Your task to perform on an android device: allow cookies in the chrome app Image 0: 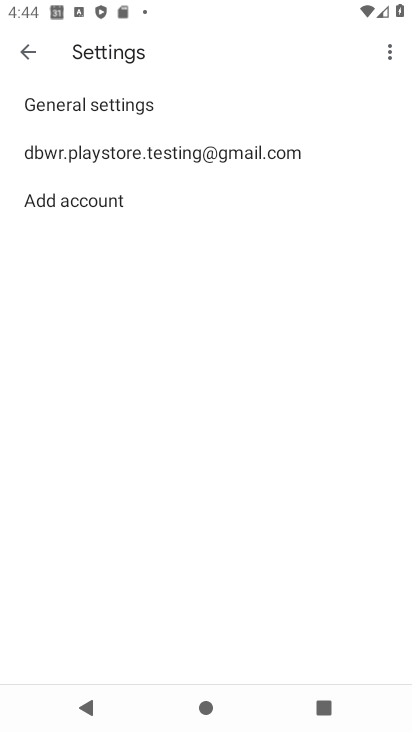
Step 0: press home button
Your task to perform on an android device: allow cookies in the chrome app Image 1: 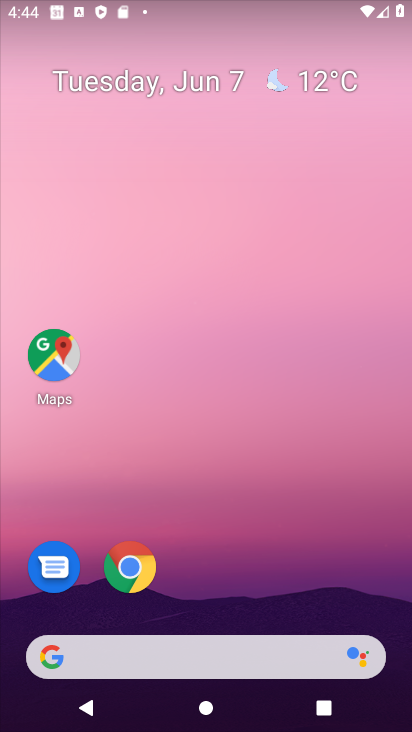
Step 1: drag from (228, 659) to (251, 144)
Your task to perform on an android device: allow cookies in the chrome app Image 2: 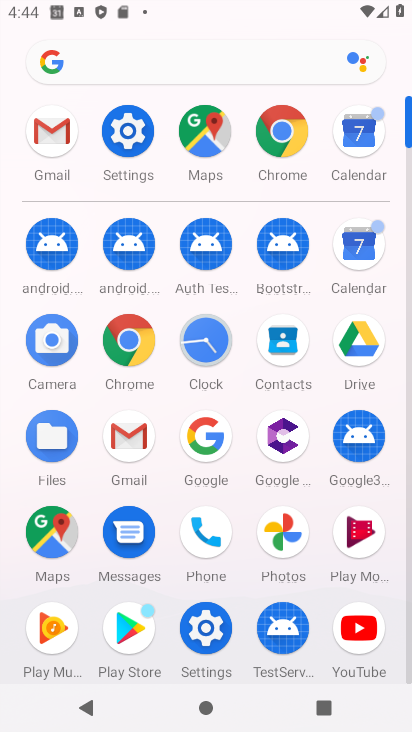
Step 2: click (138, 354)
Your task to perform on an android device: allow cookies in the chrome app Image 3: 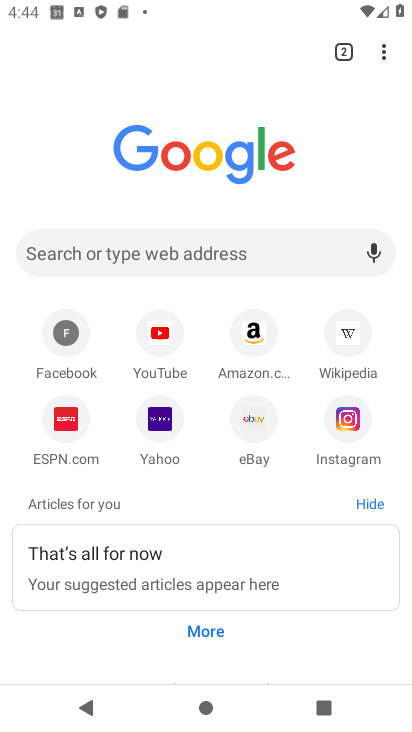
Step 3: click (392, 51)
Your task to perform on an android device: allow cookies in the chrome app Image 4: 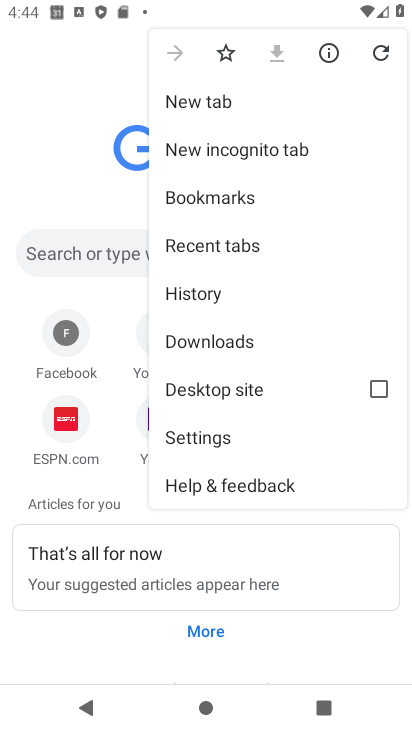
Step 4: click (236, 431)
Your task to perform on an android device: allow cookies in the chrome app Image 5: 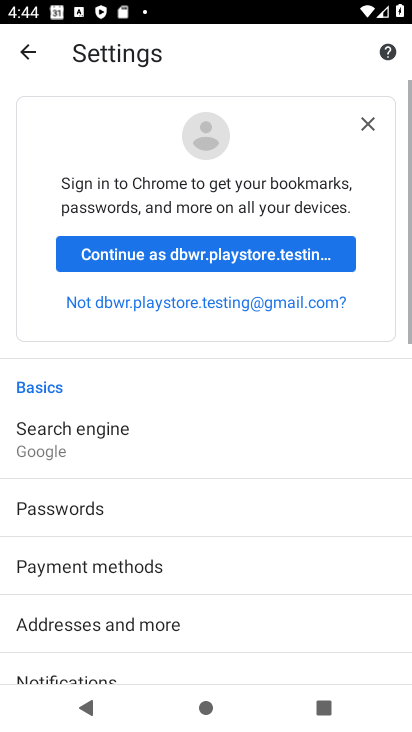
Step 5: drag from (100, 579) to (97, 114)
Your task to perform on an android device: allow cookies in the chrome app Image 6: 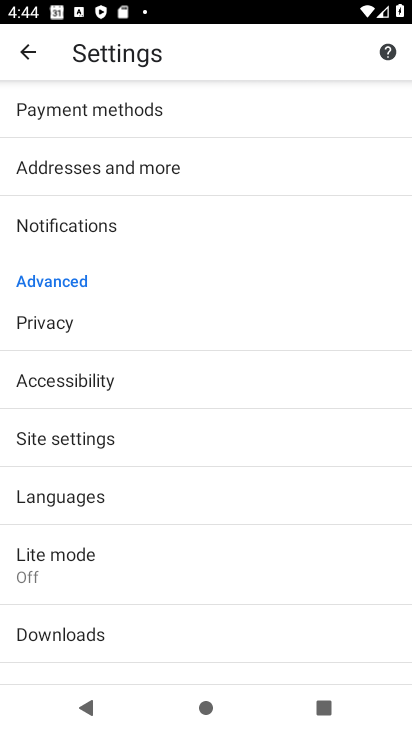
Step 6: click (118, 445)
Your task to perform on an android device: allow cookies in the chrome app Image 7: 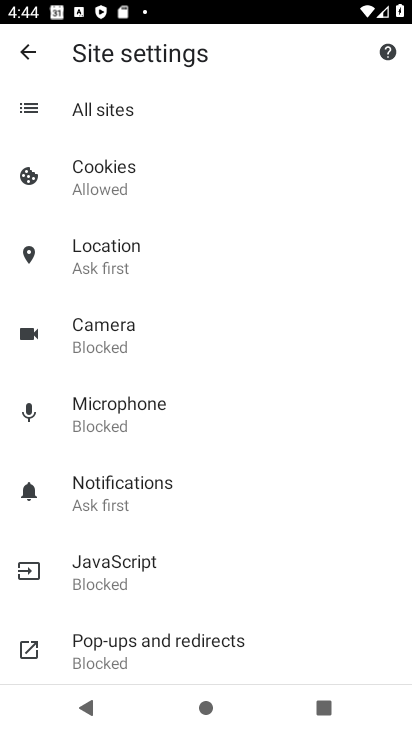
Step 7: click (121, 166)
Your task to perform on an android device: allow cookies in the chrome app Image 8: 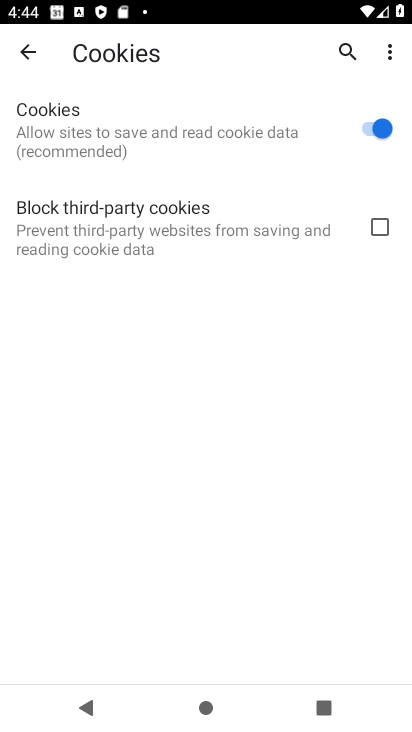
Step 8: task complete